Your task to perform on an android device: uninstall "File Manager" Image 0: 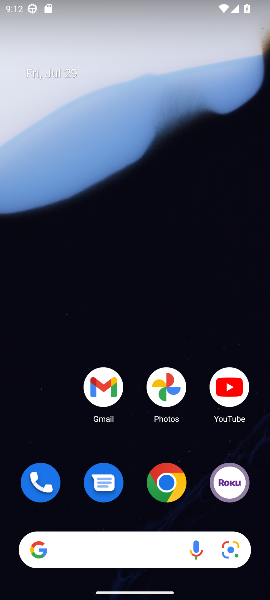
Step 0: drag from (139, 581) to (113, 27)
Your task to perform on an android device: uninstall "File Manager" Image 1: 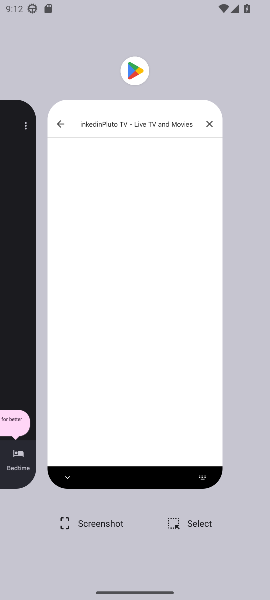
Step 1: press home button
Your task to perform on an android device: uninstall "File Manager" Image 2: 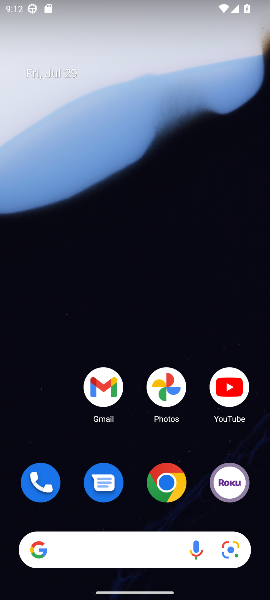
Step 2: drag from (127, 567) to (85, 141)
Your task to perform on an android device: uninstall "File Manager" Image 3: 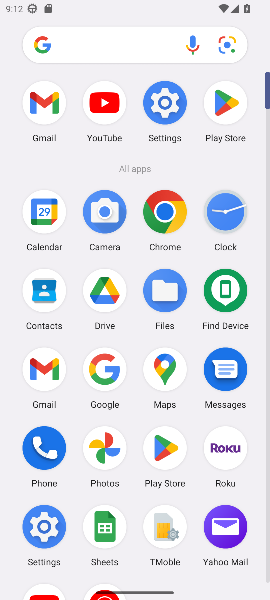
Step 3: click (156, 453)
Your task to perform on an android device: uninstall "File Manager" Image 4: 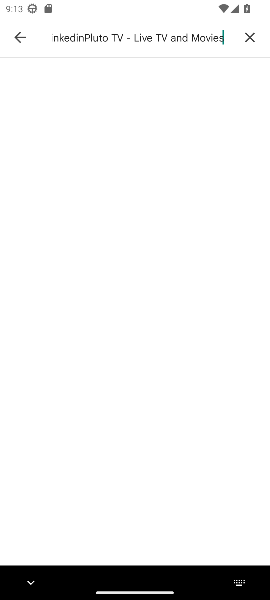
Step 4: click (245, 35)
Your task to perform on an android device: uninstall "File Manager" Image 5: 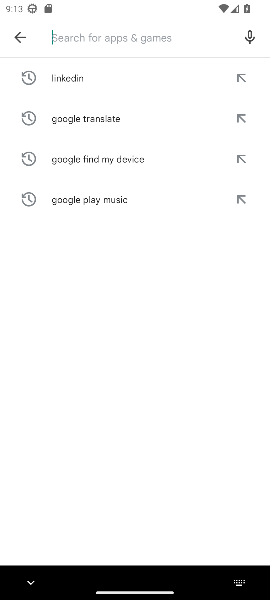
Step 5: type "File Manager"
Your task to perform on an android device: uninstall "File Manager" Image 6: 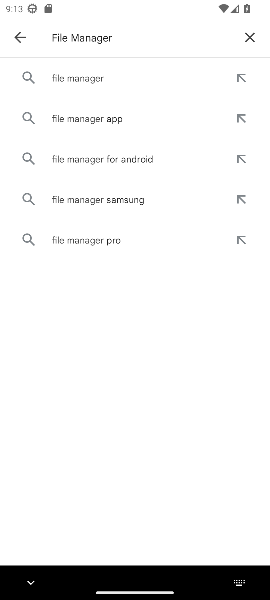
Step 6: click (84, 73)
Your task to perform on an android device: uninstall "File Manager" Image 7: 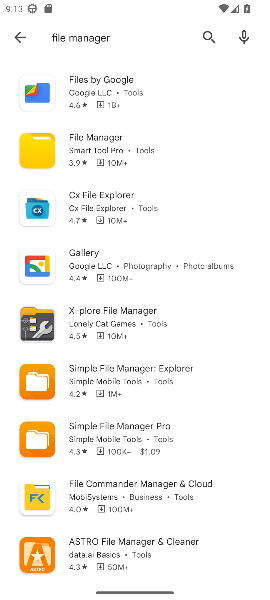
Step 7: click (83, 140)
Your task to perform on an android device: uninstall "File Manager" Image 8: 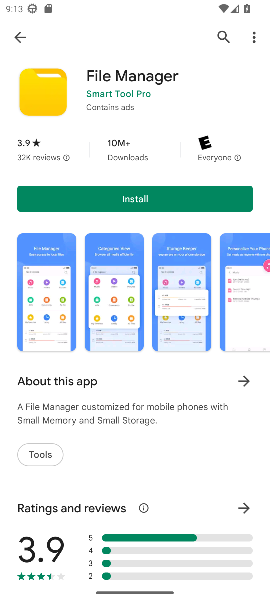
Step 8: task complete